Your task to perform on an android device: What's a good restaurant in Atlanta? Image 0: 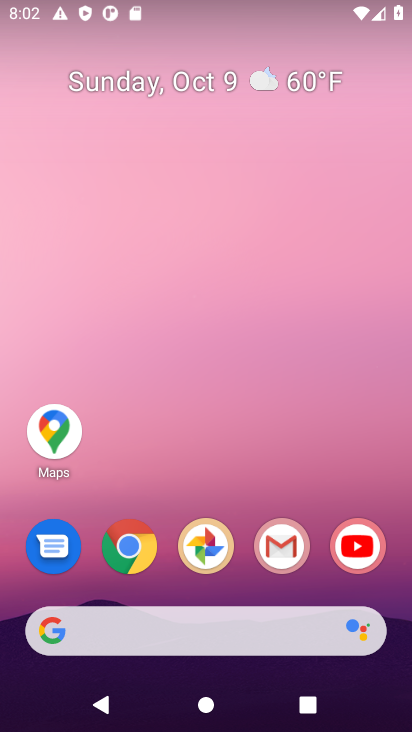
Step 0: click (127, 552)
Your task to perform on an android device: What's a good restaurant in Atlanta? Image 1: 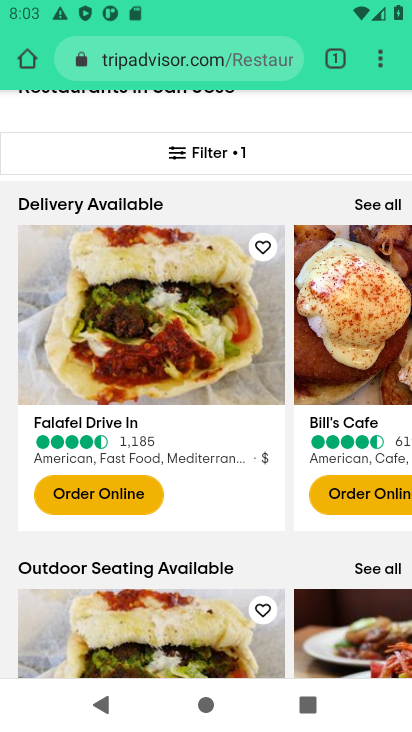
Step 1: click (198, 48)
Your task to perform on an android device: What's a good restaurant in Atlanta? Image 2: 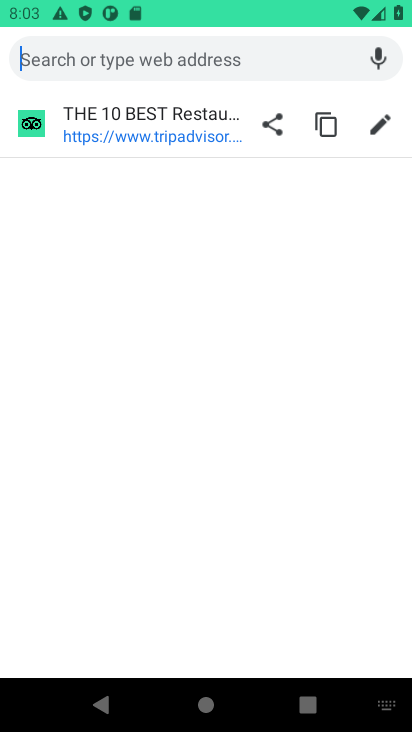
Step 2: type "good restaurant in Atlanta"
Your task to perform on an android device: What's a good restaurant in Atlanta? Image 3: 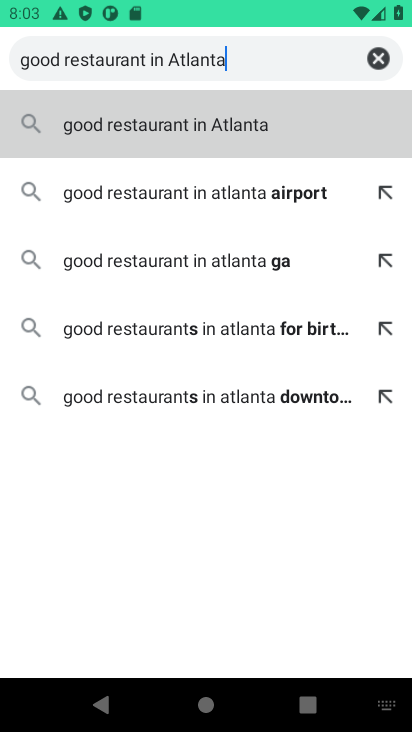
Step 3: press enter
Your task to perform on an android device: What's a good restaurant in Atlanta? Image 4: 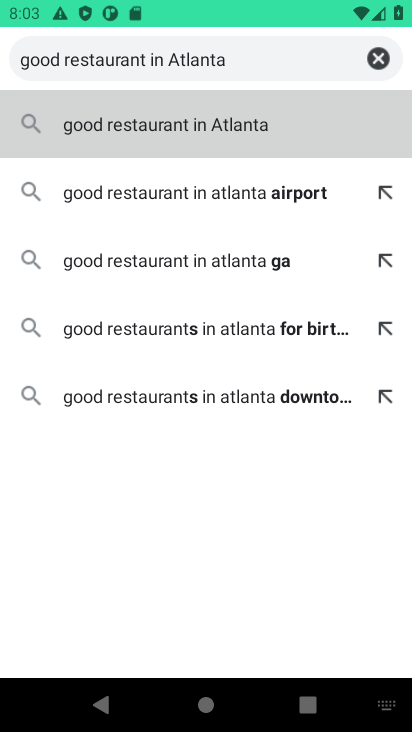
Step 4: type ""
Your task to perform on an android device: What's a good restaurant in Atlanta? Image 5: 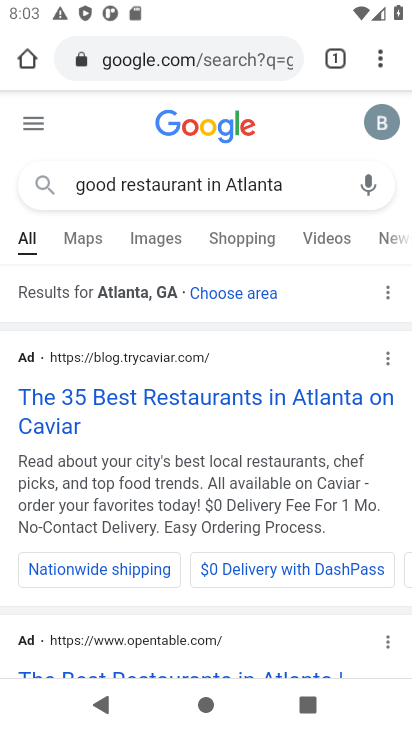
Step 5: drag from (236, 572) to (262, 443)
Your task to perform on an android device: What's a good restaurant in Atlanta? Image 6: 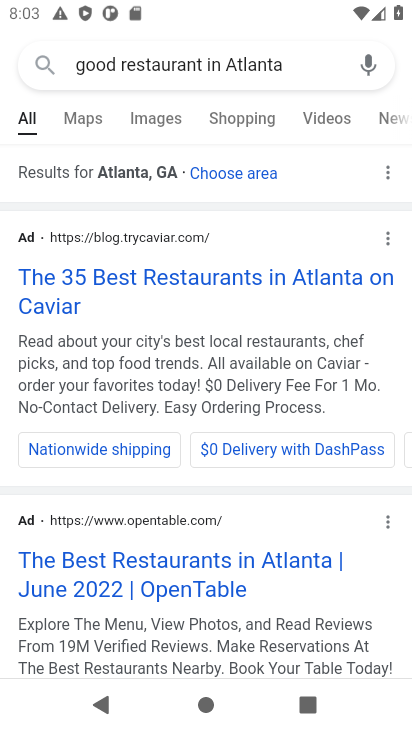
Step 6: drag from (262, 443) to (262, 379)
Your task to perform on an android device: What's a good restaurant in Atlanta? Image 7: 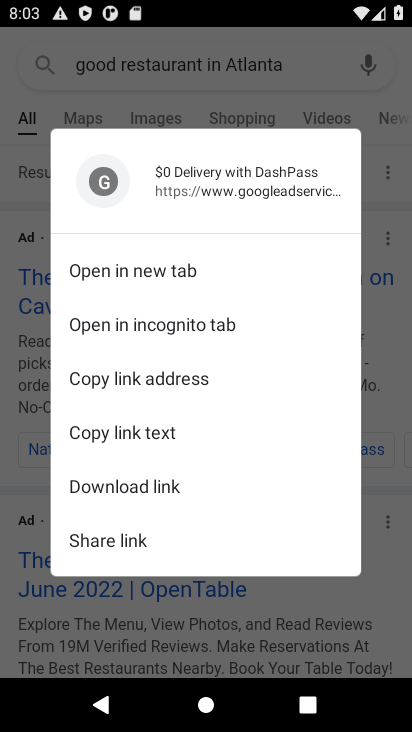
Step 7: click (269, 593)
Your task to perform on an android device: What's a good restaurant in Atlanta? Image 8: 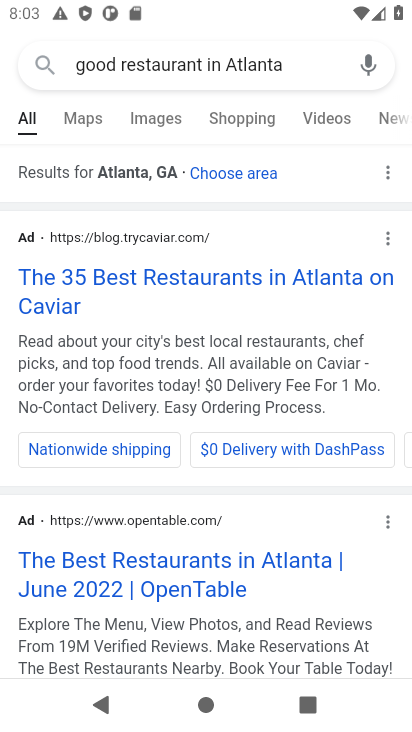
Step 8: task complete